Your task to perform on an android device: create a new album in the google photos Image 0: 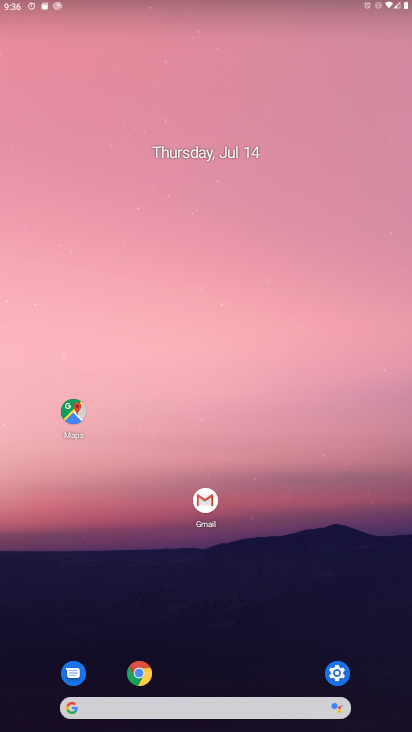
Step 0: press home button
Your task to perform on an android device: create a new album in the google photos Image 1: 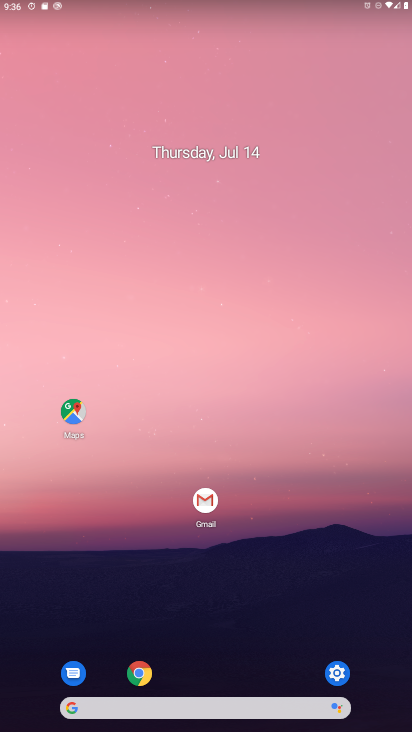
Step 1: drag from (240, 713) to (252, 206)
Your task to perform on an android device: create a new album in the google photos Image 2: 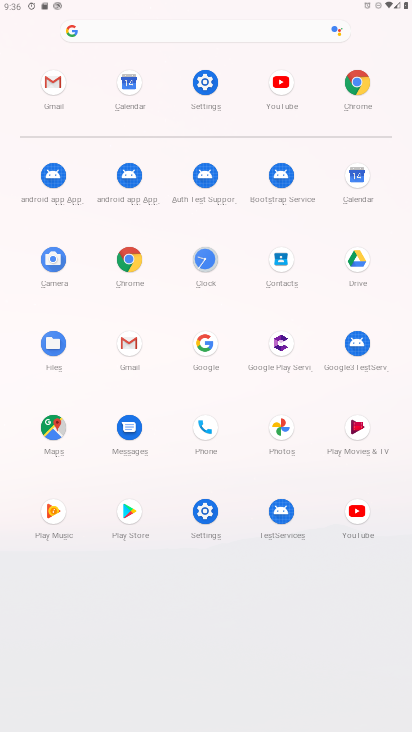
Step 2: click (272, 423)
Your task to perform on an android device: create a new album in the google photos Image 3: 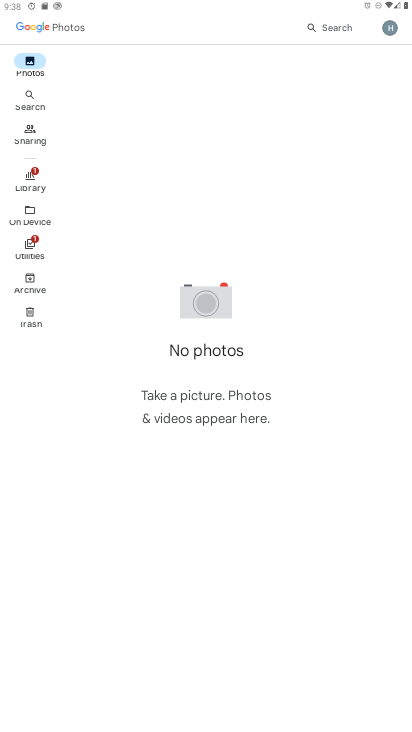
Step 3: task complete